Your task to perform on an android device: Go to Reddit.com Image 0: 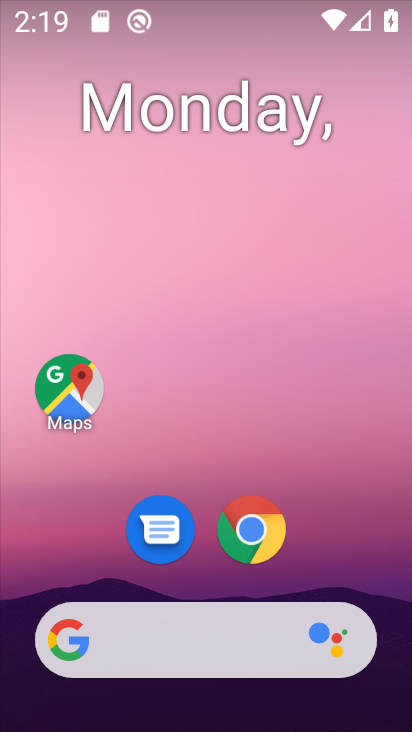
Step 0: click (249, 514)
Your task to perform on an android device: Go to Reddit.com Image 1: 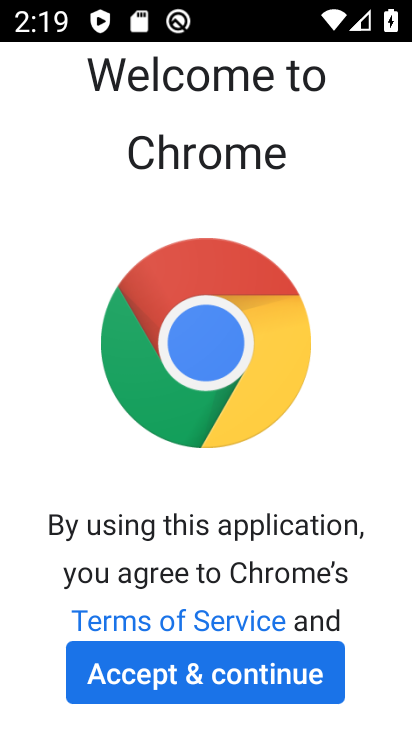
Step 1: click (266, 690)
Your task to perform on an android device: Go to Reddit.com Image 2: 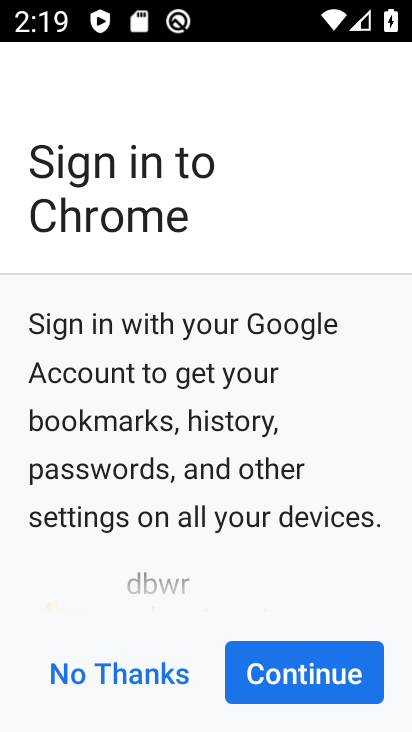
Step 2: click (318, 675)
Your task to perform on an android device: Go to Reddit.com Image 3: 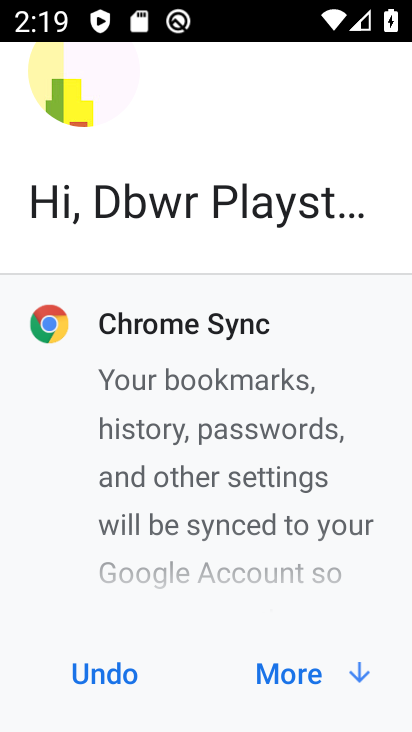
Step 3: click (311, 675)
Your task to perform on an android device: Go to Reddit.com Image 4: 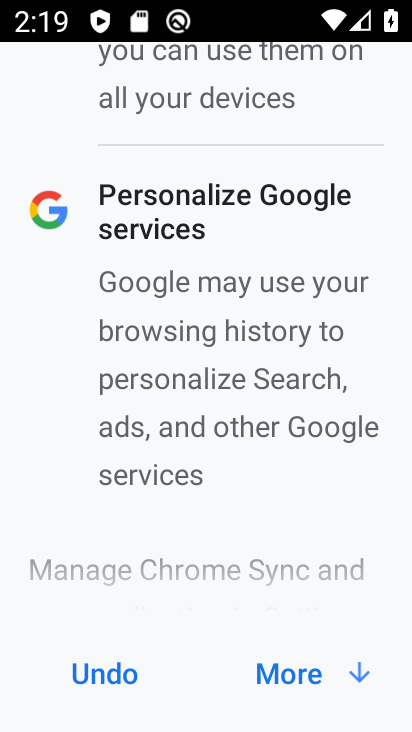
Step 4: click (303, 680)
Your task to perform on an android device: Go to Reddit.com Image 5: 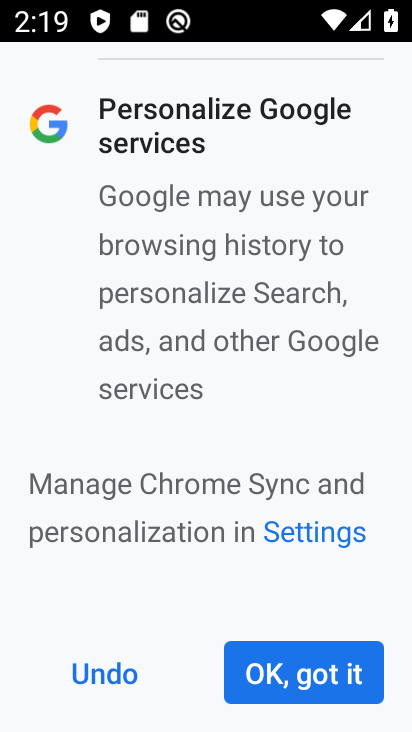
Step 5: click (303, 680)
Your task to perform on an android device: Go to Reddit.com Image 6: 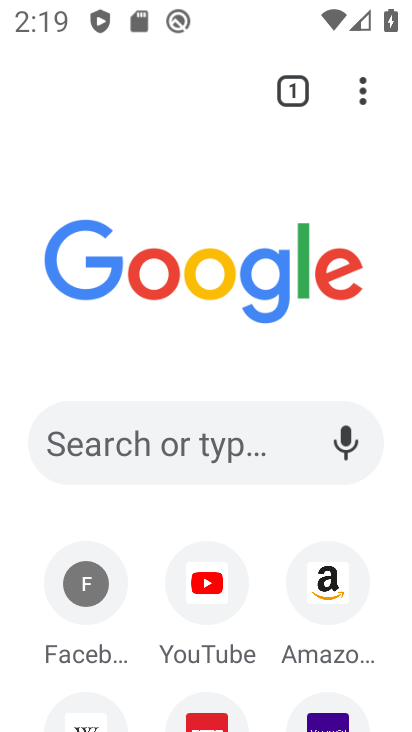
Step 6: click (141, 458)
Your task to perform on an android device: Go to Reddit.com Image 7: 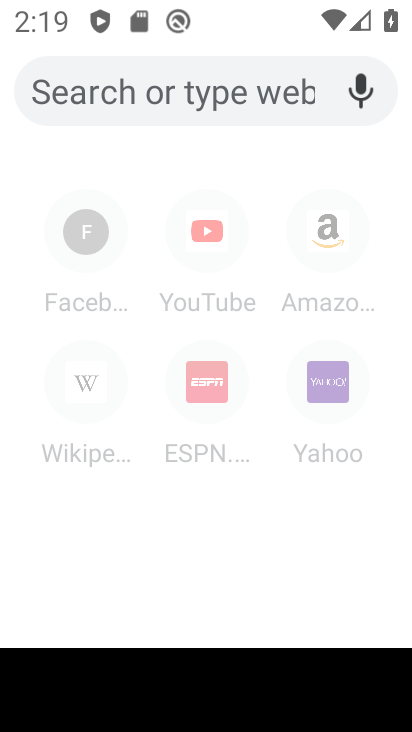
Step 7: type "Reddit.com"
Your task to perform on an android device: Go to Reddit.com Image 8: 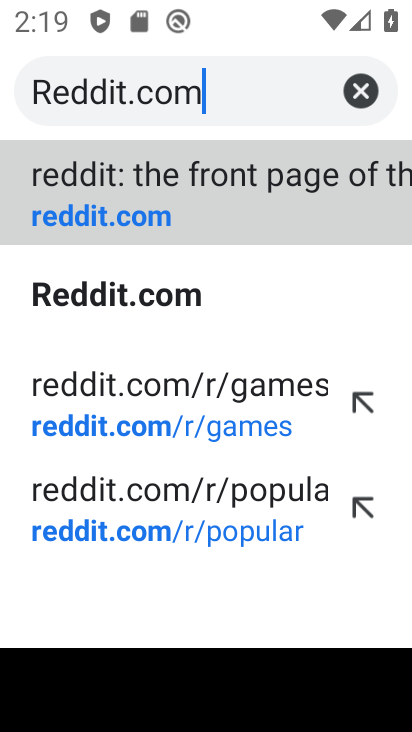
Step 8: click (139, 304)
Your task to perform on an android device: Go to Reddit.com Image 9: 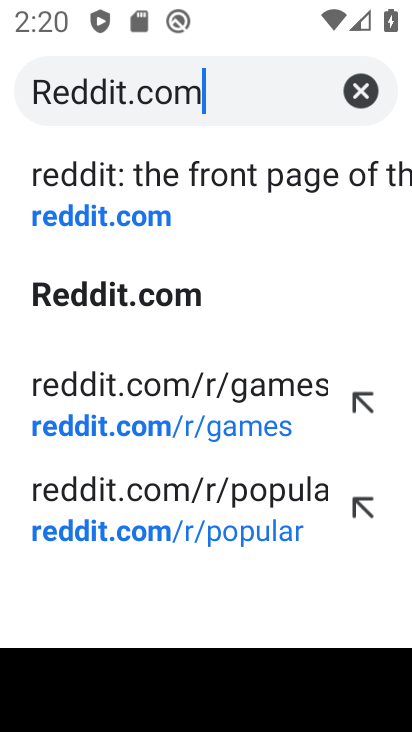
Step 9: click (194, 304)
Your task to perform on an android device: Go to Reddit.com Image 10: 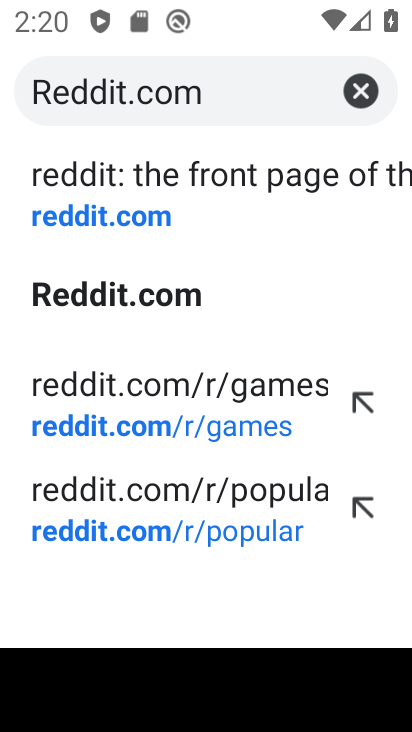
Step 10: click (180, 297)
Your task to perform on an android device: Go to Reddit.com Image 11: 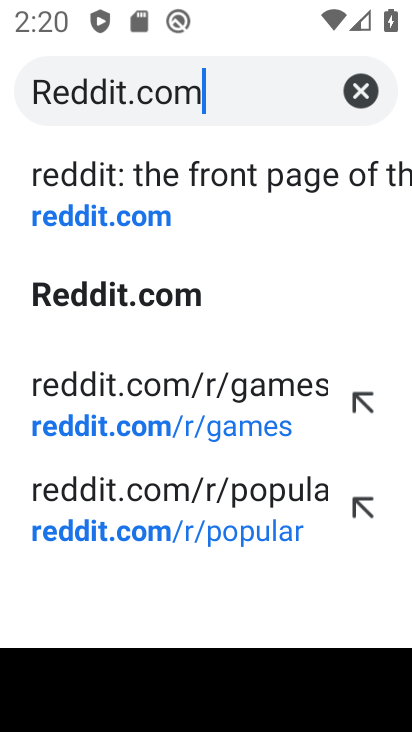
Step 11: click (279, 212)
Your task to perform on an android device: Go to Reddit.com Image 12: 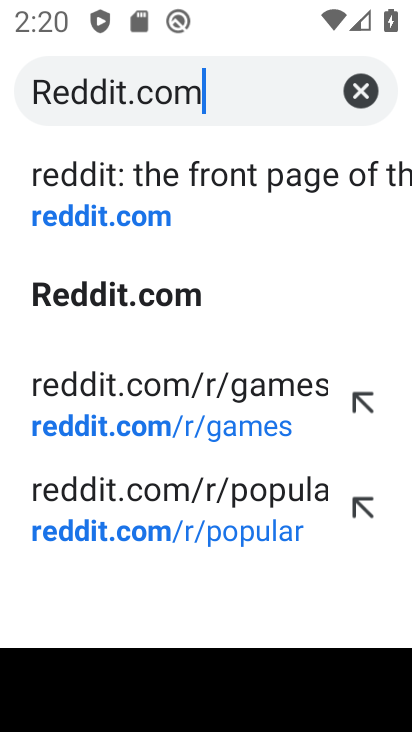
Step 12: click (259, 208)
Your task to perform on an android device: Go to Reddit.com Image 13: 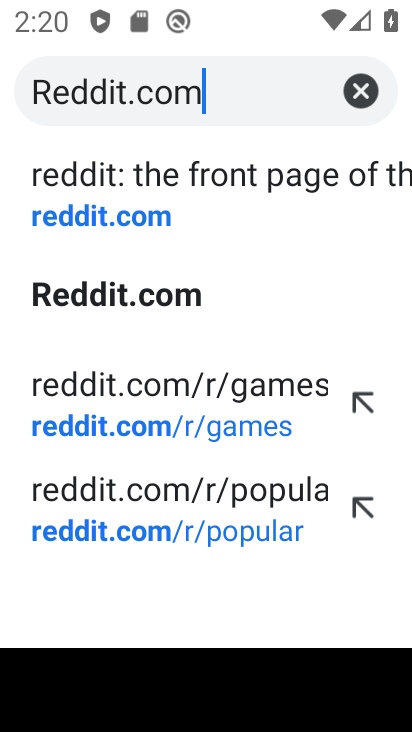
Step 13: click (230, 272)
Your task to perform on an android device: Go to Reddit.com Image 14: 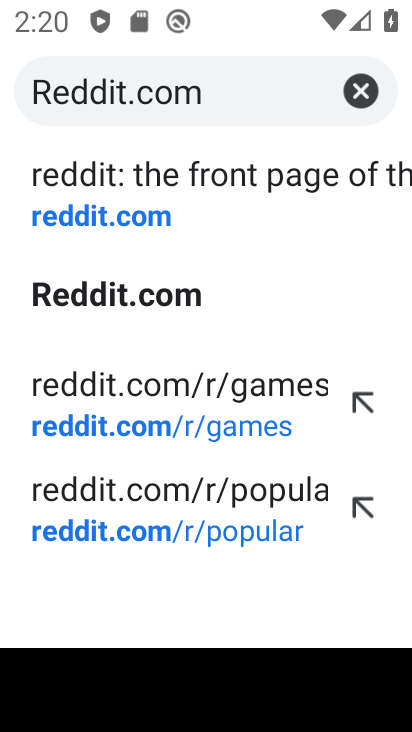
Step 14: click (221, 293)
Your task to perform on an android device: Go to Reddit.com Image 15: 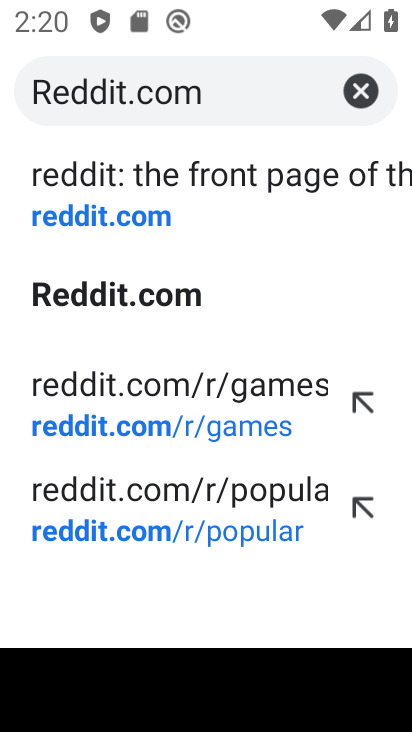
Step 15: click (144, 284)
Your task to perform on an android device: Go to Reddit.com Image 16: 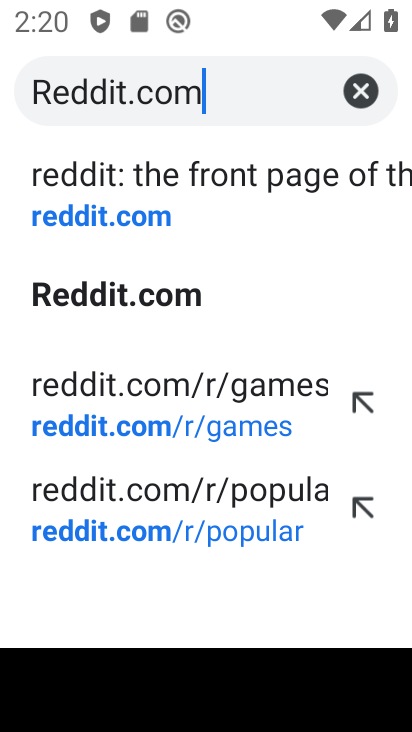
Step 16: click (366, 104)
Your task to perform on an android device: Go to Reddit.com Image 17: 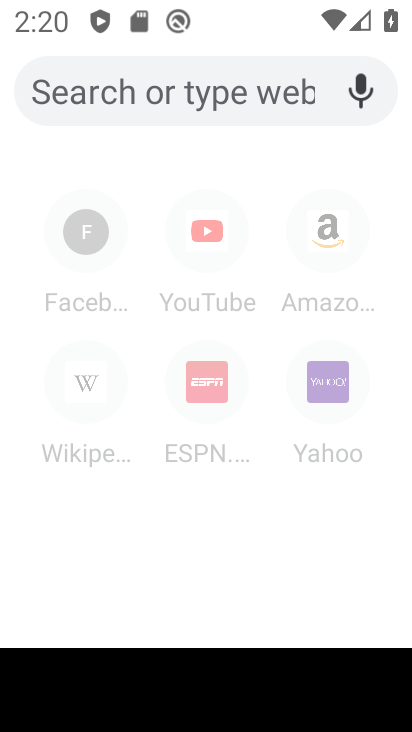
Step 17: type "reddit.com"
Your task to perform on an android device: Go to Reddit.com Image 18: 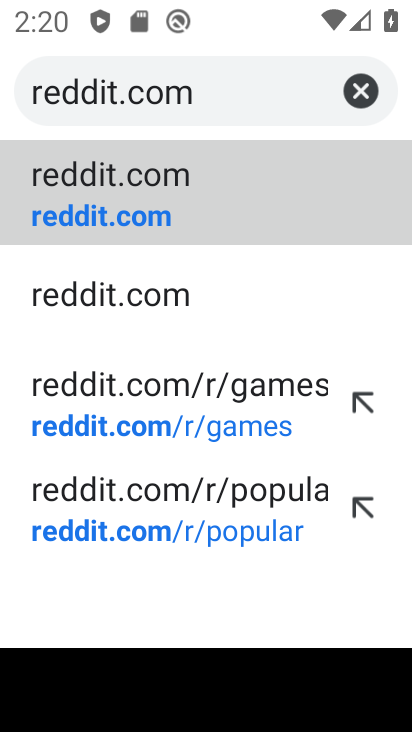
Step 18: click (161, 216)
Your task to perform on an android device: Go to Reddit.com Image 19: 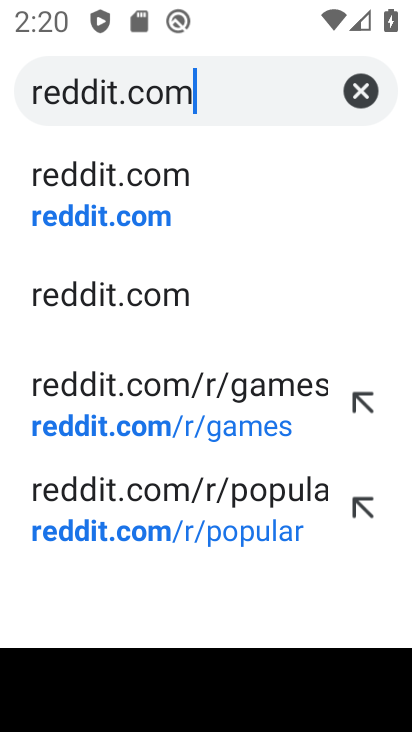
Step 19: click (153, 217)
Your task to perform on an android device: Go to Reddit.com Image 20: 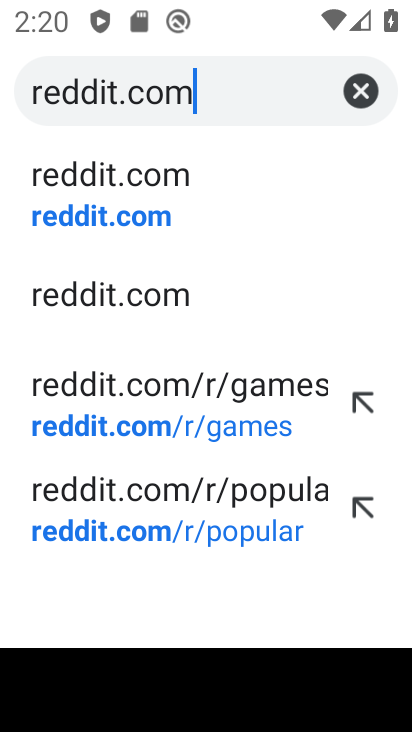
Step 20: task complete